Your task to perform on an android device: Open calendar and show me the first week of next month Image 0: 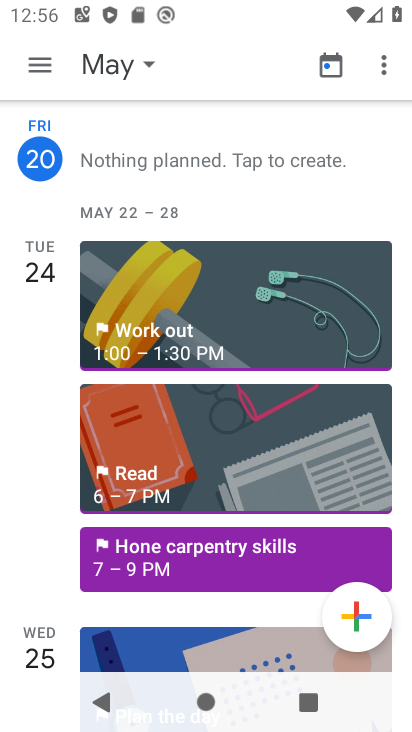
Step 0: click (33, 61)
Your task to perform on an android device: Open calendar and show me the first week of next month Image 1: 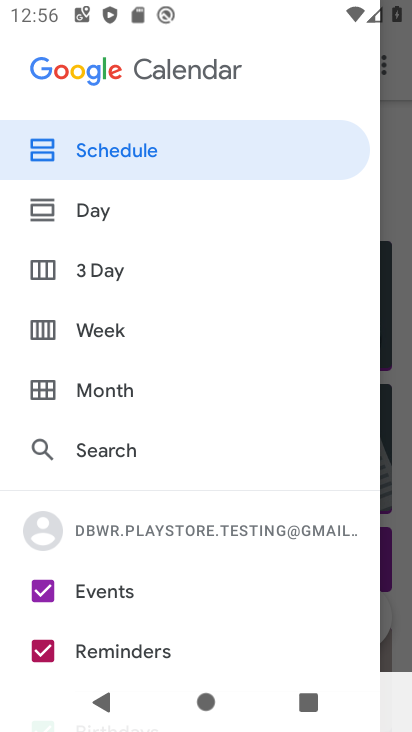
Step 1: click (42, 326)
Your task to perform on an android device: Open calendar and show me the first week of next month Image 2: 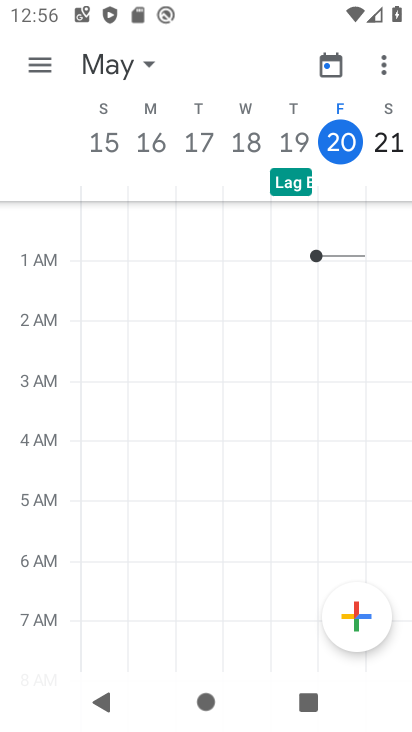
Step 2: task complete